Your task to perform on an android device: turn off sleep mode Image 0: 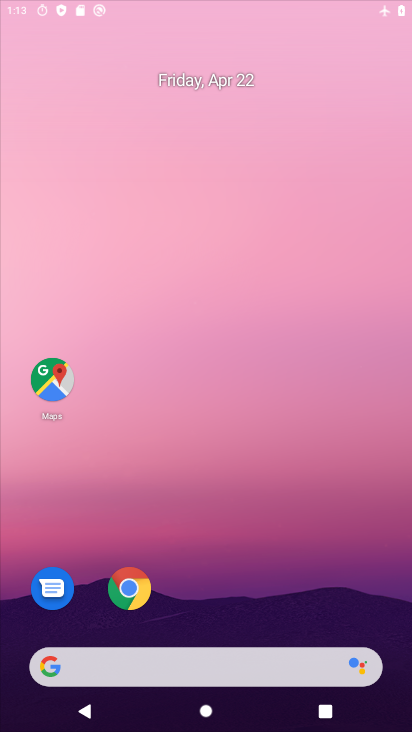
Step 0: click (206, 158)
Your task to perform on an android device: turn off sleep mode Image 1: 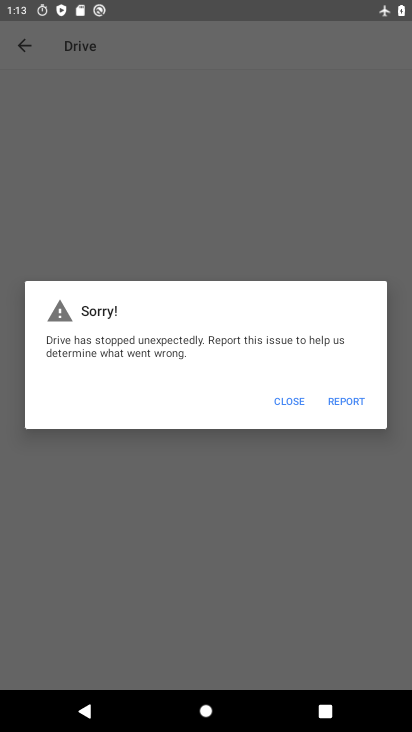
Step 1: task complete